Your task to perform on an android device: Go to settings Image 0: 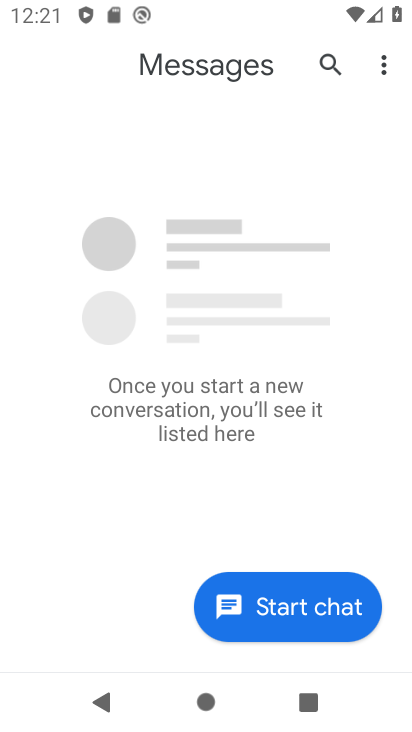
Step 0: press home button
Your task to perform on an android device: Go to settings Image 1: 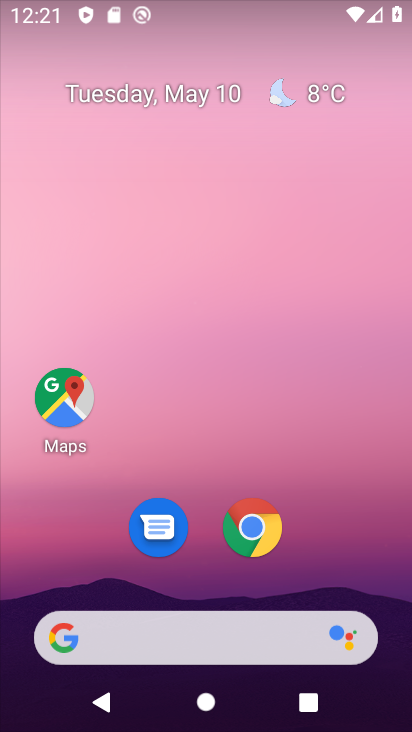
Step 1: drag from (324, 507) to (137, 180)
Your task to perform on an android device: Go to settings Image 2: 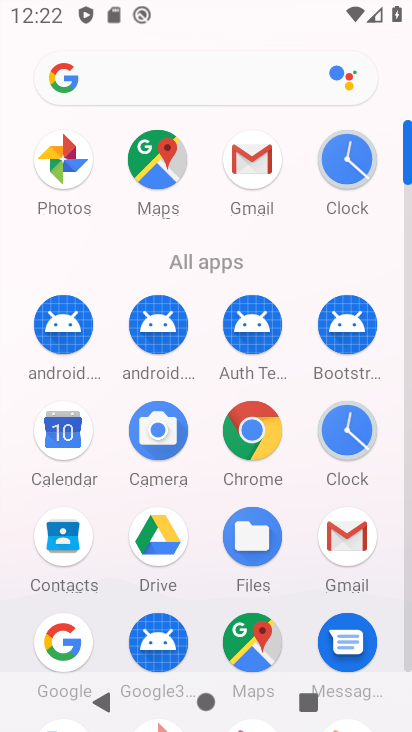
Step 2: drag from (204, 638) to (204, 147)
Your task to perform on an android device: Go to settings Image 3: 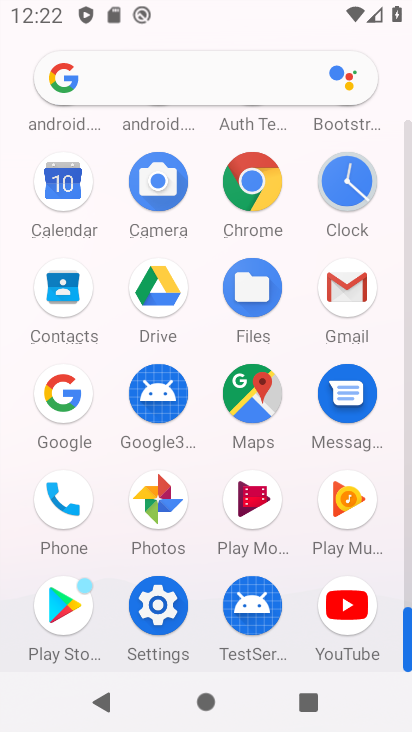
Step 3: click (159, 614)
Your task to perform on an android device: Go to settings Image 4: 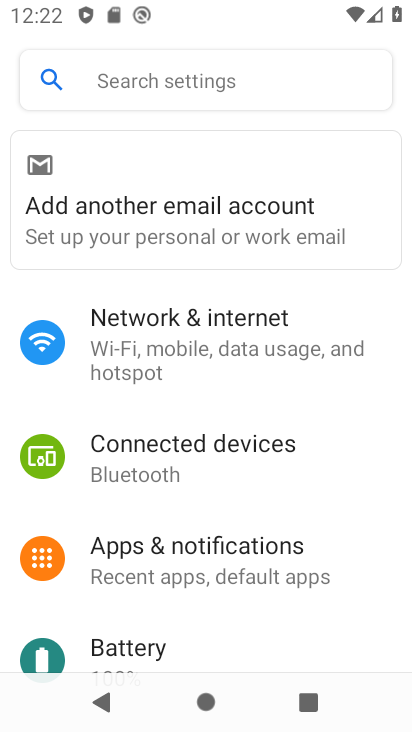
Step 4: task complete